Your task to perform on an android device: add a label to a message in the gmail app Image 0: 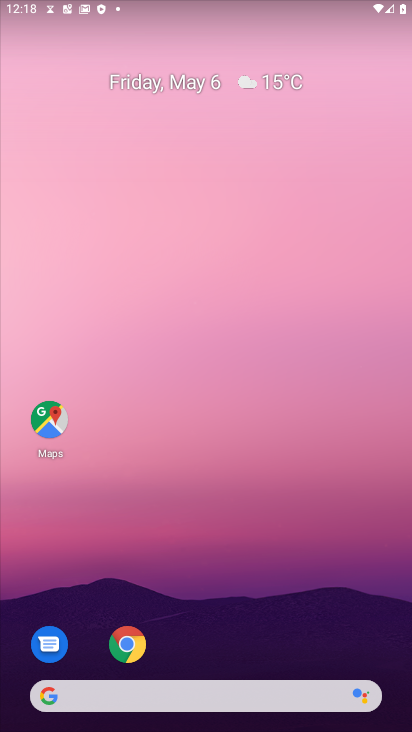
Step 0: drag from (289, 597) to (309, 15)
Your task to perform on an android device: add a label to a message in the gmail app Image 1: 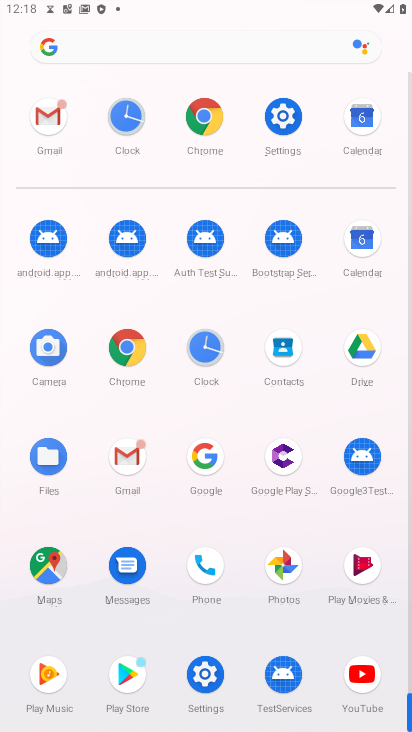
Step 1: drag from (0, 597) to (15, 251)
Your task to perform on an android device: add a label to a message in the gmail app Image 2: 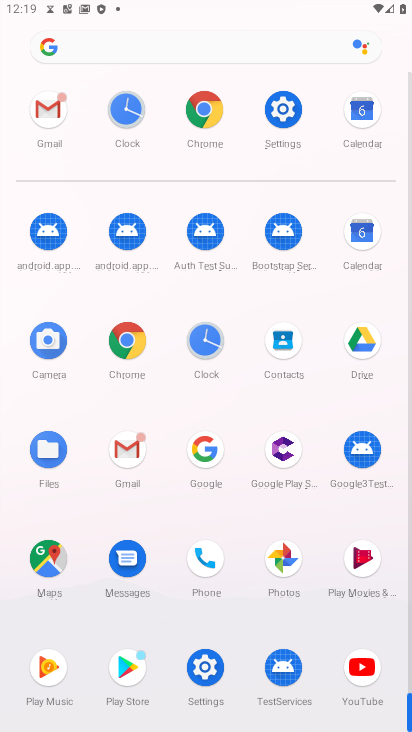
Step 2: drag from (12, 607) to (24, 243)
Your task to perform on an android device: add a label to a message in the gmail app Image 3: 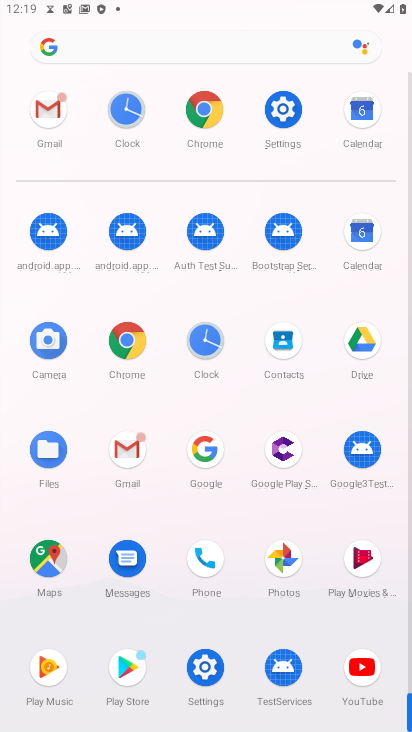
Step 3: drag from (10, 626) to (10, 408)
Your task to perform on an android device: add a label to a message in the gmail app Image 4: 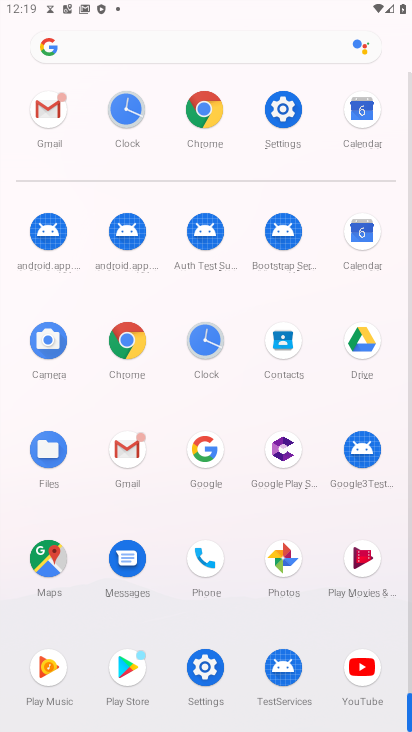
Step 4: click (128, 447)
Your task to perform on an android device: add a label to a message in the gmail app Image 5: 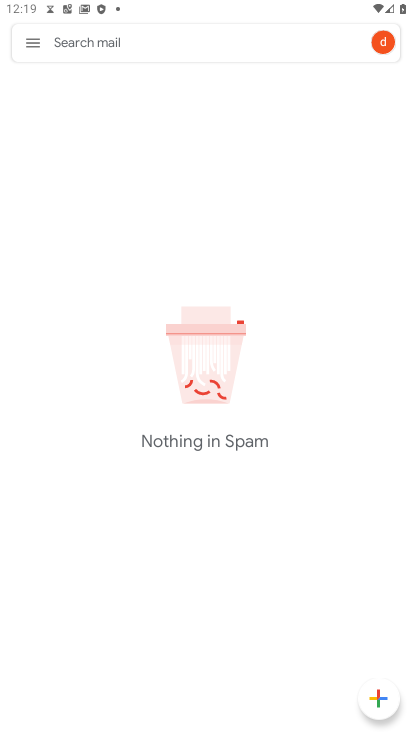
Step 5: click (33, 37)
Your task to perform on an android device: add a label to a message in the gmail app Image 6: 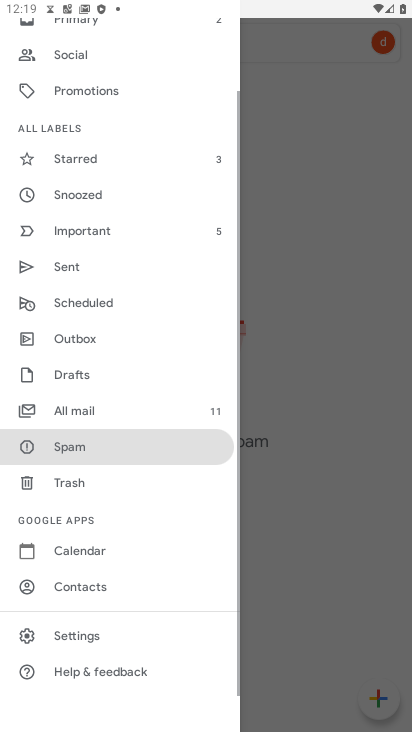
Step 6: drag from (115, 566) to (130, 132)
Your task to perform on an android device: add a label to a message in the gmail app Image 7: 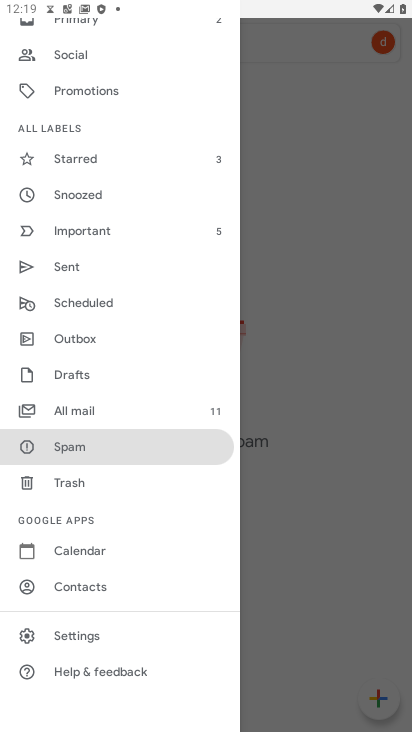
Step 7: click (104, 410)
Your task to perform on an android device: add a label to a message in the gmail app Image 8: 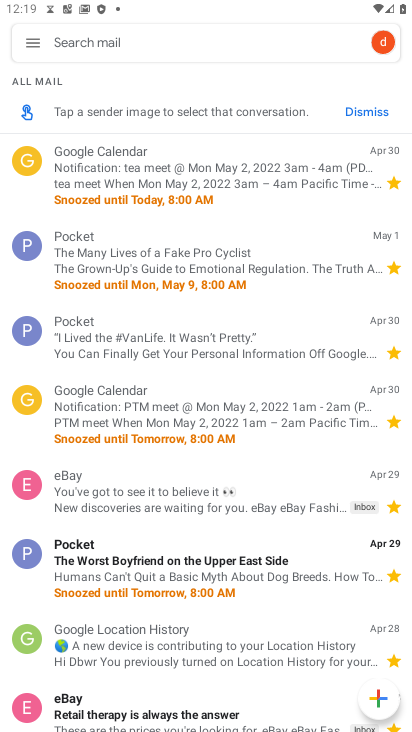
Step 8: click (166, 337)
Your task to perform on an android device: add a label to a message in the gmail app Image 9: 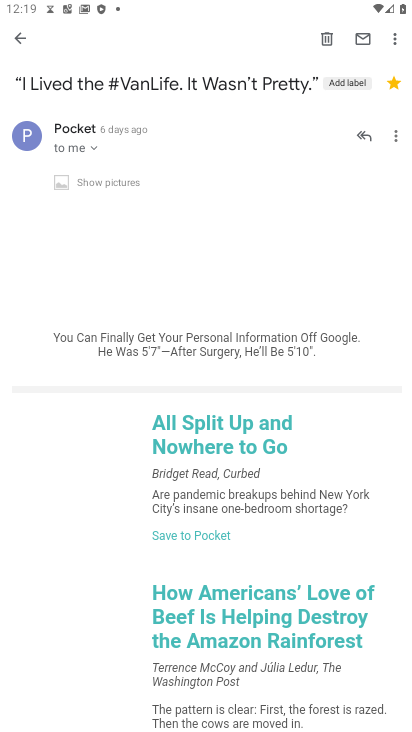
Step 9: click (340, 81)
Your task to perform on an android device: add a label to a message in the gmail app Image 10: 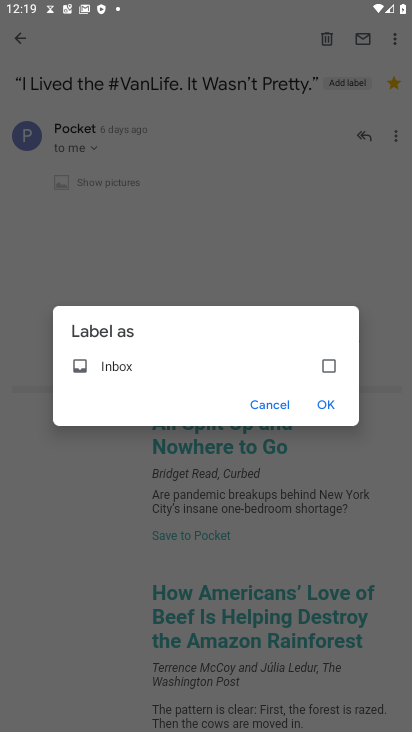
Step 10: click (329, 362)
Your task to perform on an android device: add a label to a message in the gmail app Image 11: 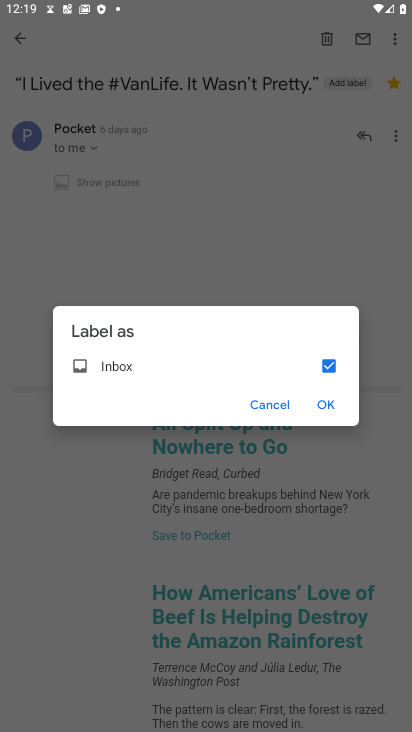
Step 11: click (324, 399)
Your task to perform on an android device: add a label to a message in the gmail app Image 12: 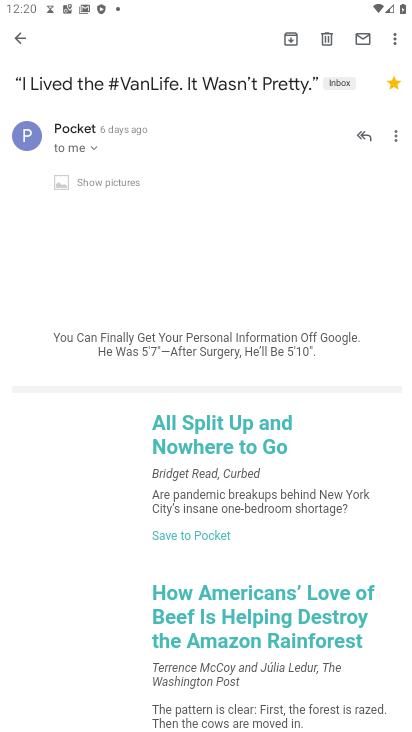
Step 12: task complete